Your task to perform on an android device: Search for flights from Tokyo to NYC Image 0: 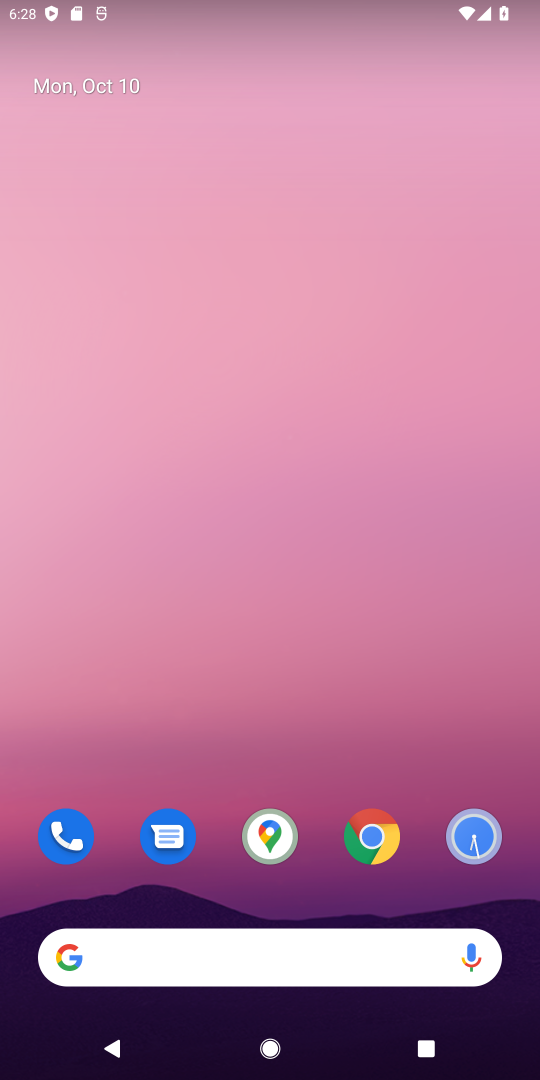
Step 0: click (376, 836)
Your task to perform on an android device: Search for flights from Tokyo to NYC Image 1: 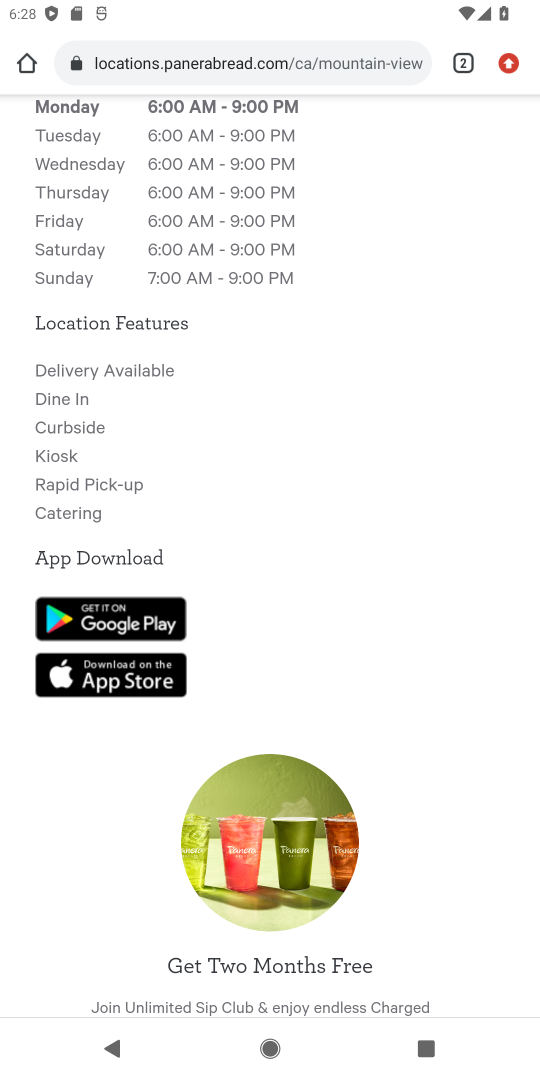
Step 1: click (201, 43)
Your task to perform on an android device: Search for flights from Tokyo to NYC Image 2: 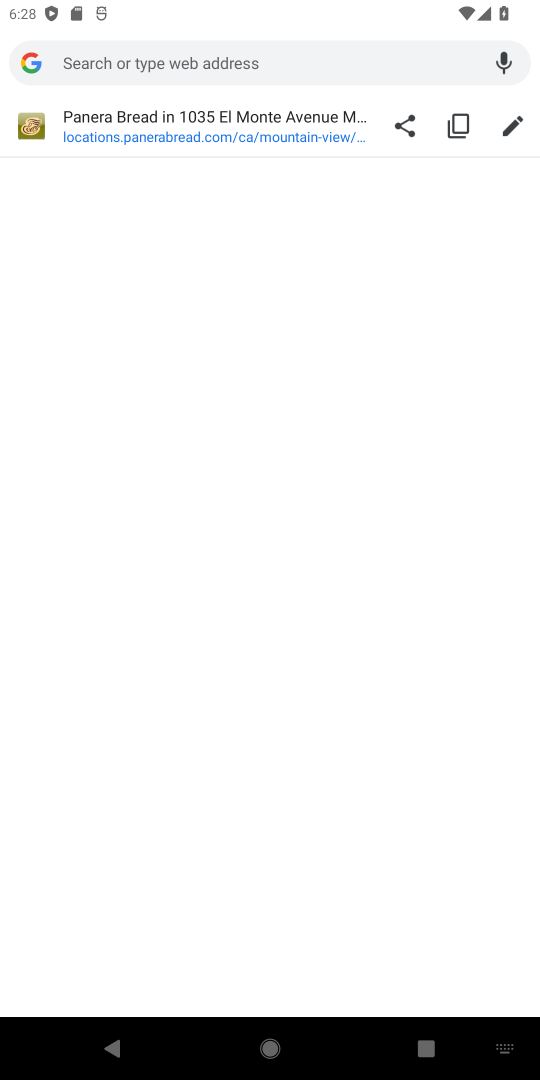
Step 2: type "flights from Tokyo to NYC"
Your task to perform on an android device: Search for flights from Tokyo to NYC Image 3: 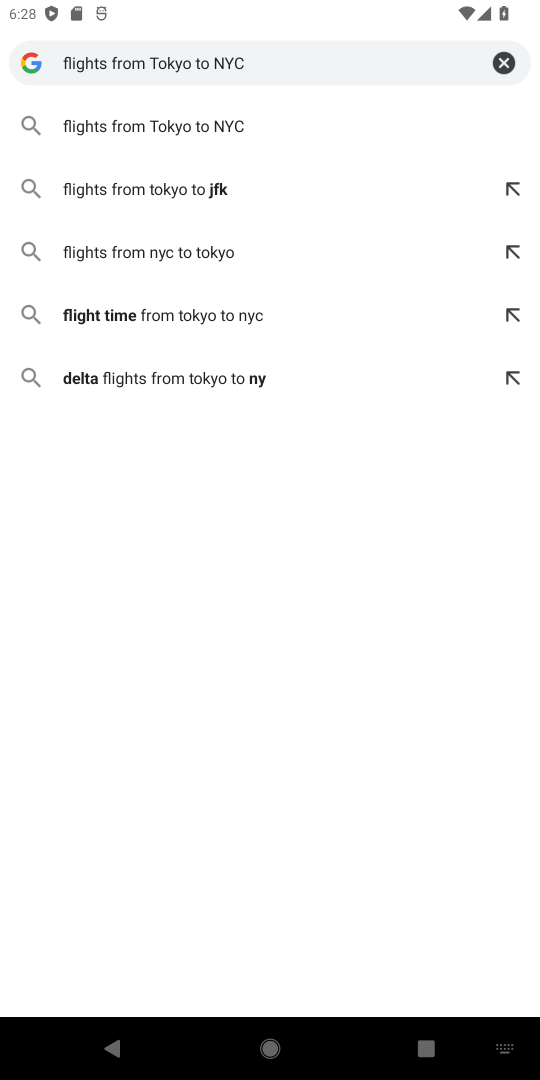
Step 3: click (169, 135)
Your task to perform on an android device: Search for flights from Tokyo to NYC Image 4: 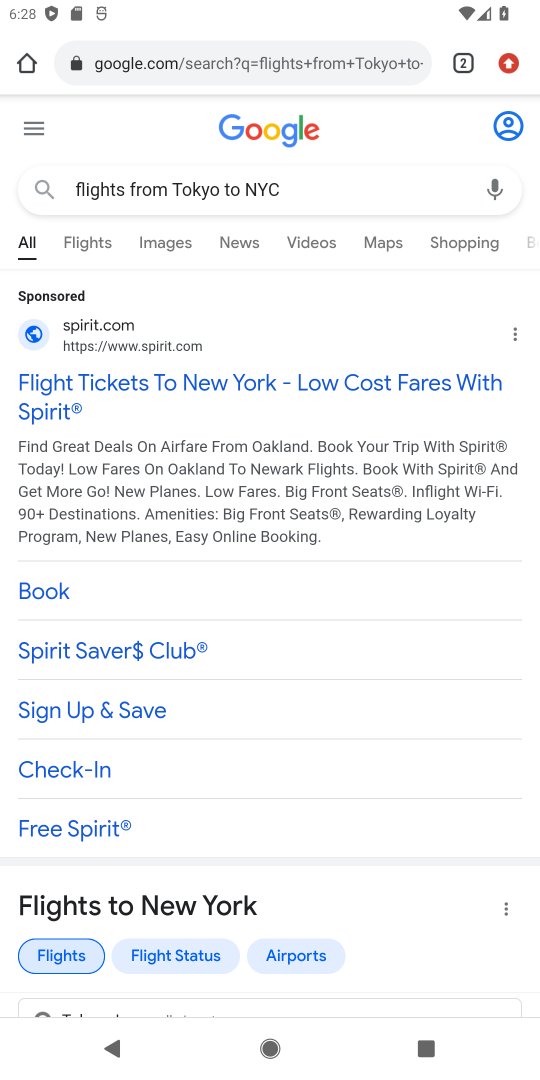
Step 4: click (89, 405)
Your task to perform on an android device: Search for flights from Tokyo to NYC Image 5: 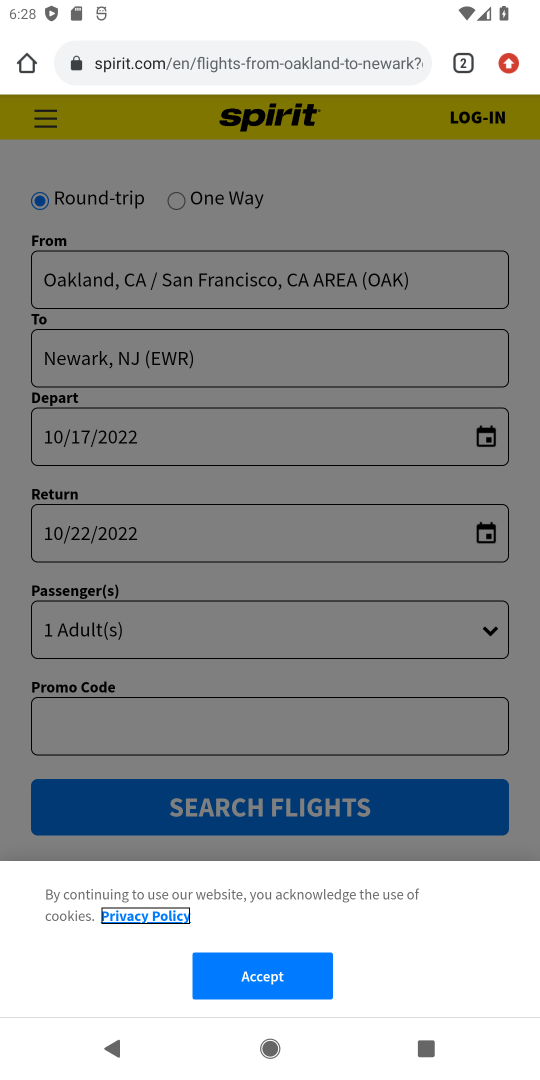
Step 5: click (259, 978)
Your task to perform on an android device: Search for flights from Tokyo to NYC Image 6: 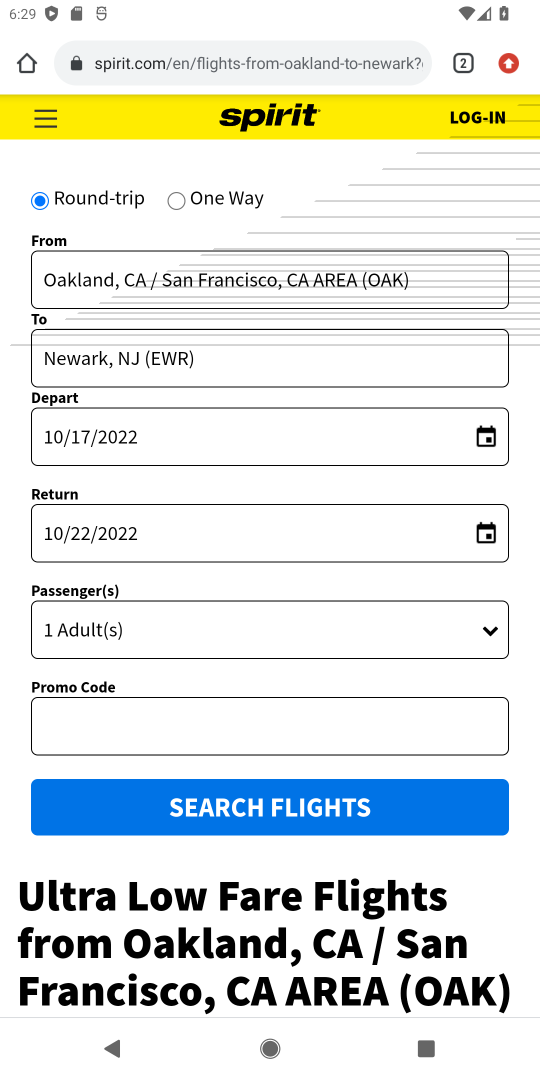
Step 6: click (250, 804)
Your task to perform on an android device: Search for flights from Tokyo to NYC Image 7: 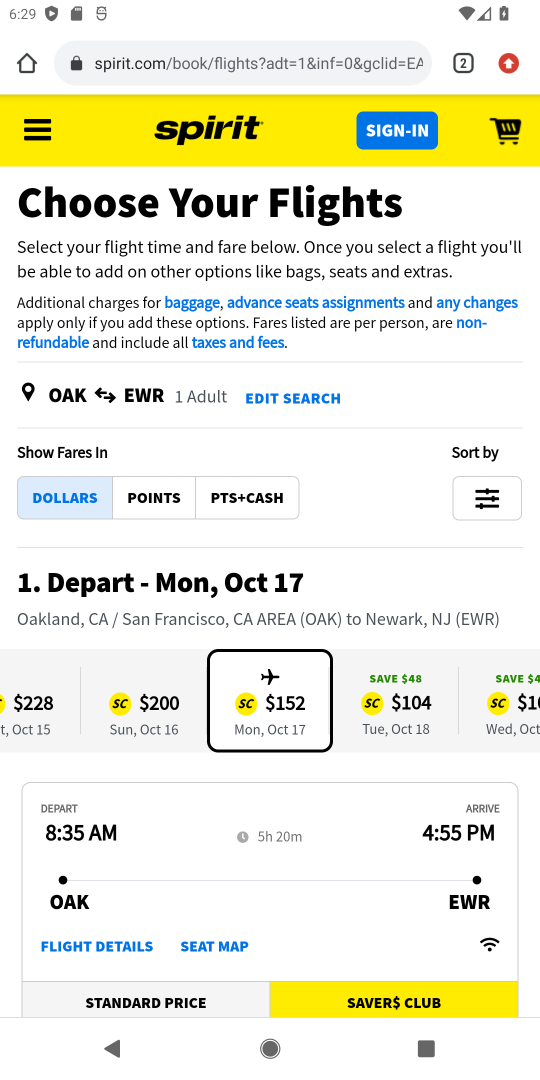
Step 7: task complete